Your task to perform on an android device: turn off location Image 0: 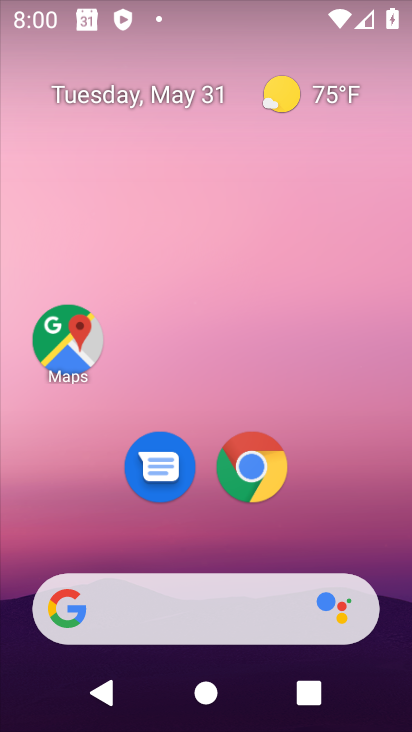
Step 0: drag from (198, 525) to (386, 13)
Your task to perform on an android device: turn off location Image 1: 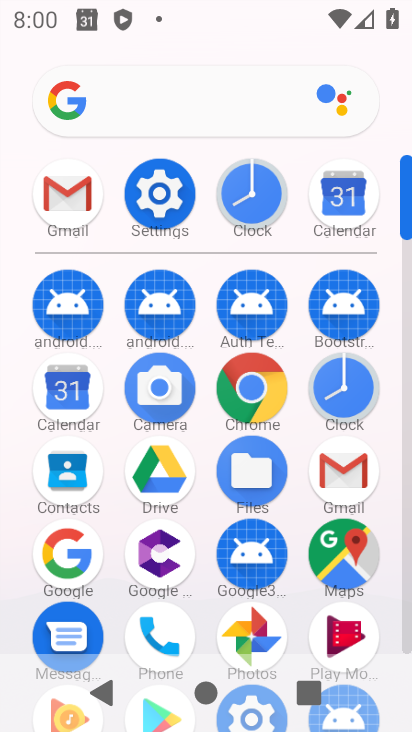
Step 1: click (148, 196)
Your task to perform on an android device: turn off location Image 2: 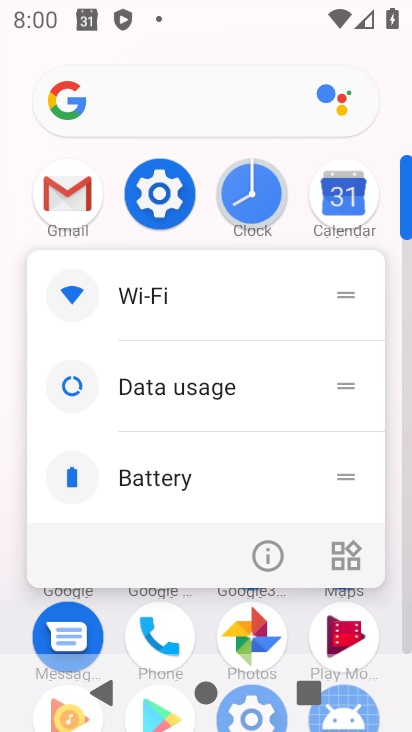
Step 2: click (275, 552)
Your task to perform on an android device: turn off location Image 3: 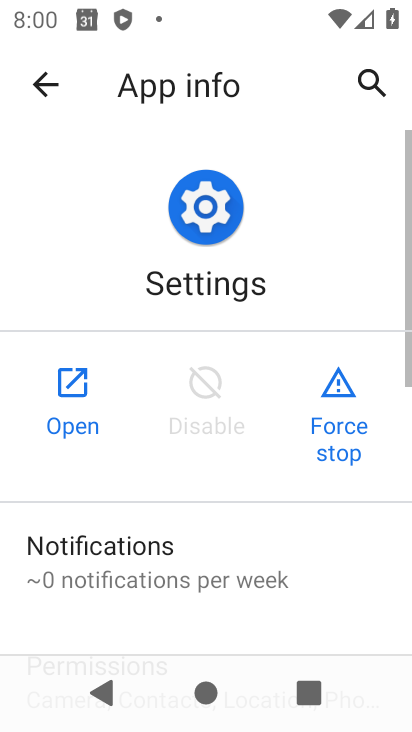
Step 3: click (84, 423)
Your task to perform on an android device: turn off location Image 4: 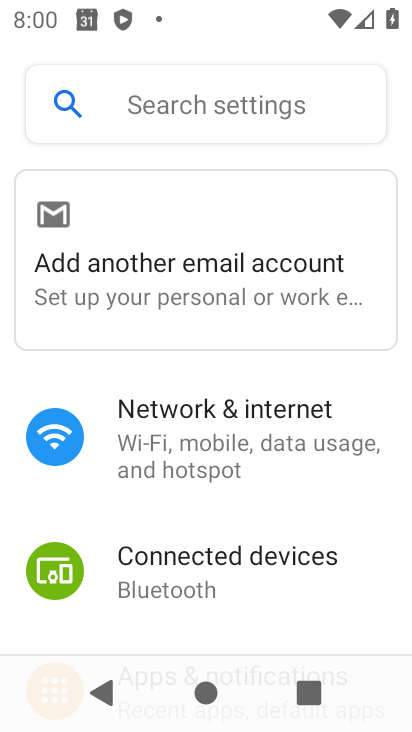
Step 4: drag from (157, 537) to (279, 178)
Your task to perform on an android device: turn off location Image 5: 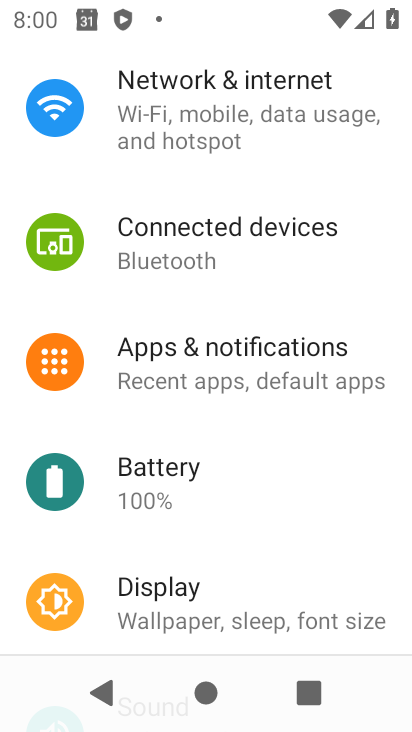
Step 5: drag from (235, 568) to (282, 146)
Your task to perform on an android device: turn off location Image 6: 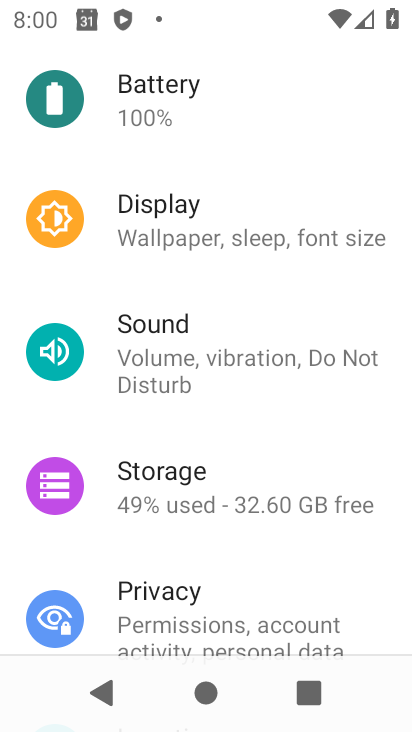
Step 6: drag from (196, 579) to (226, 199)
Your task to perform on an android device: turn off location Image 7: 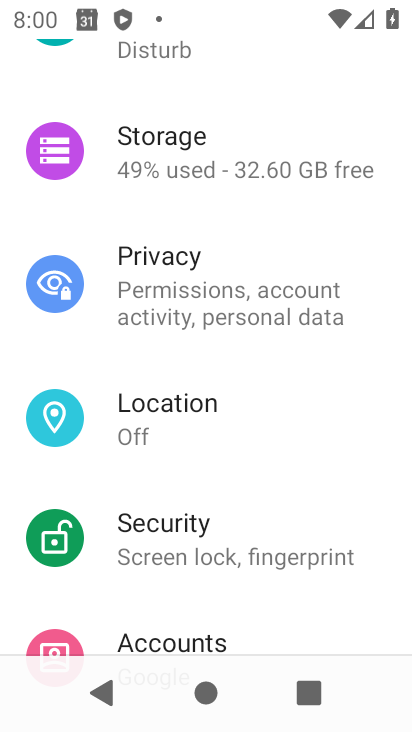
Step 7: click (159, 418)
Your task to perform on an android device: turn off location Image 8: 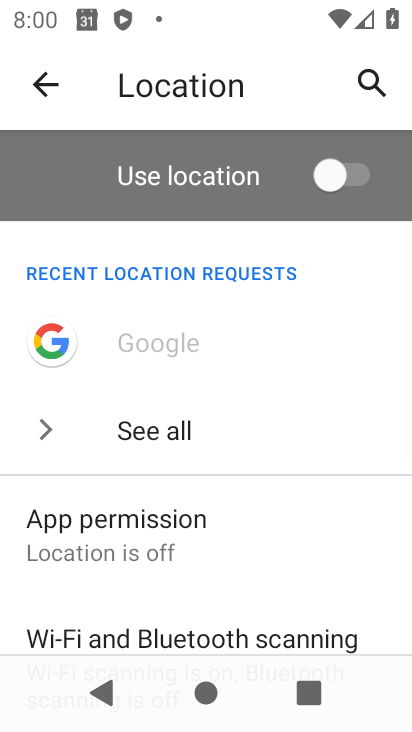
Step 8: task complete